Your task to perform on an android device: empty trash in google photos Image 0: 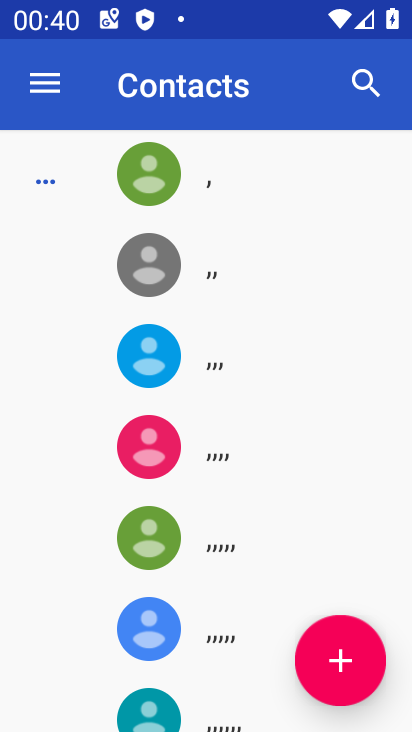
Step 0: press home button
Your task to perform on an android device: empty trash in google photos Image 1: 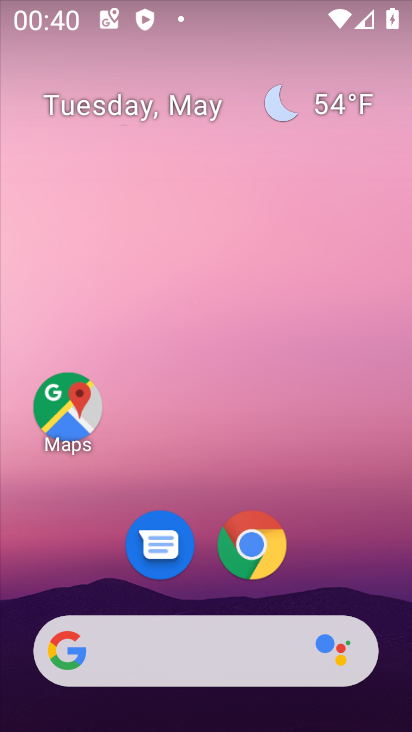
Step 1: drag from (337, 588) to (340, 217)
Your task to perform on an android device: empty trash in google photos Image 2: 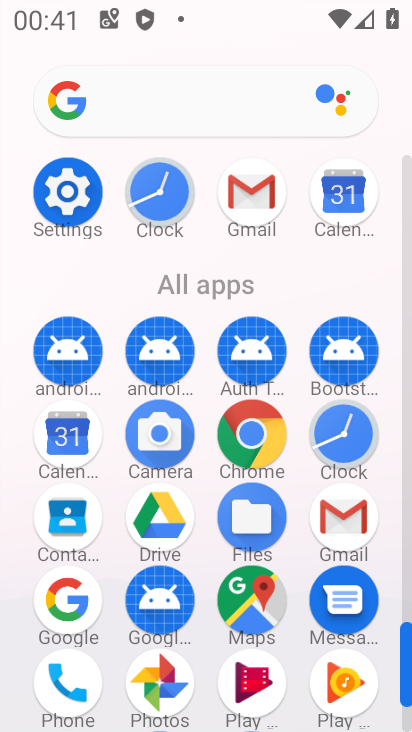
Step 2: click (166, 679)
Your task to perform on an android device: empty trash in google photos Image 3: 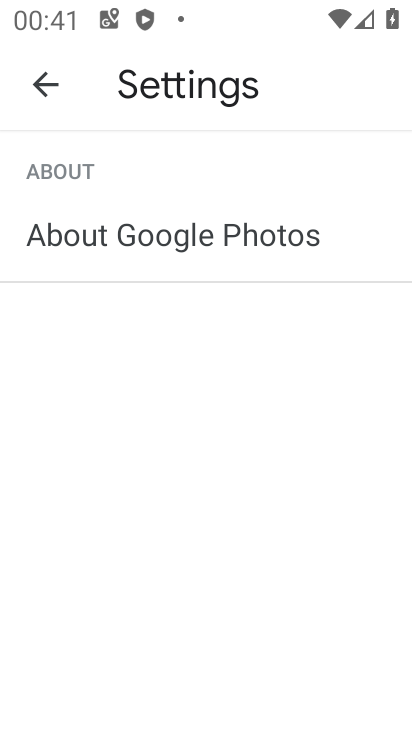
Step 3: click (54, 71)
Your task to perform on an android device: empty trash in google photos Image 4: 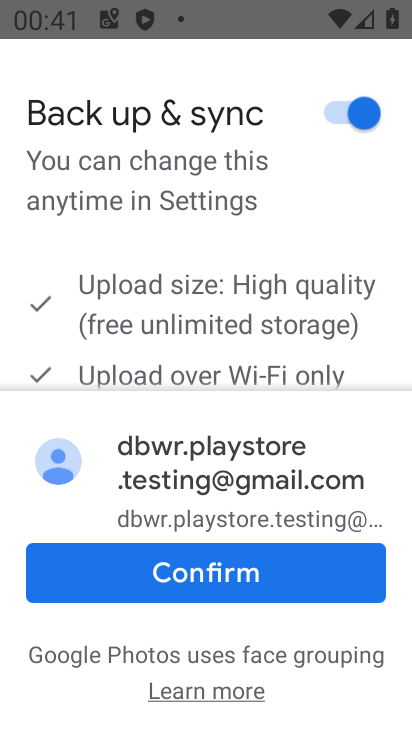
Step 4: click (185, 580)
Your task to perform on an android device: empty trash in google photos Image 5: 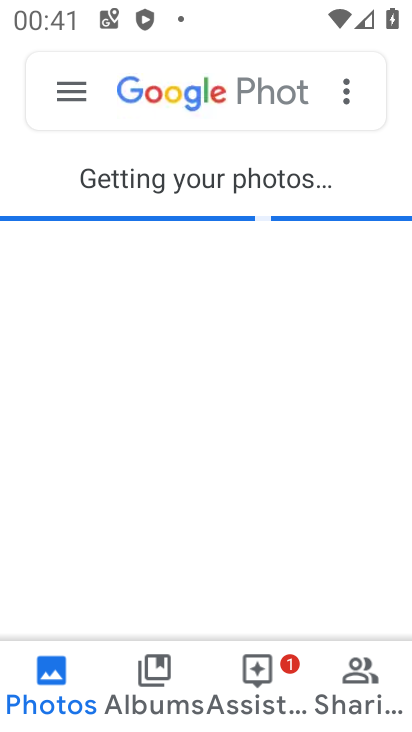
Step 5: click (63, 93)
Your task to perform on an android device: empty trash in google photos Image 6: 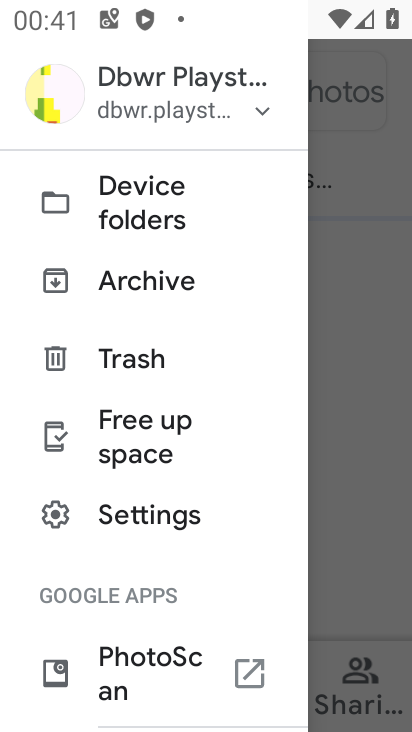
Step 6: click (168, 353)
Your task to perform on an android device: empty trash in google photos Image 7: 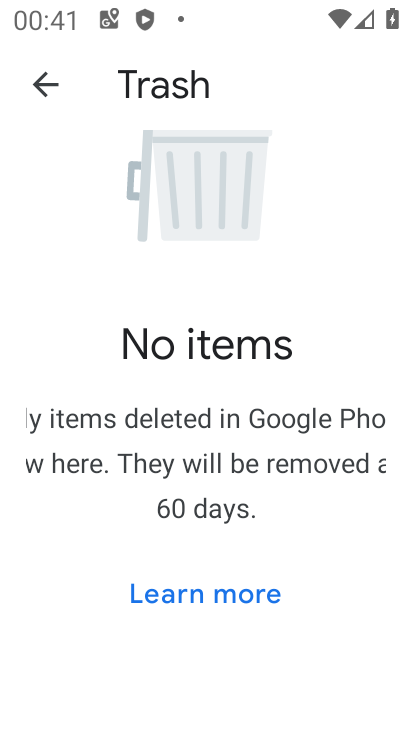
Step 7: task complete